Your task to perform on an android device: Go to settings Image 0: 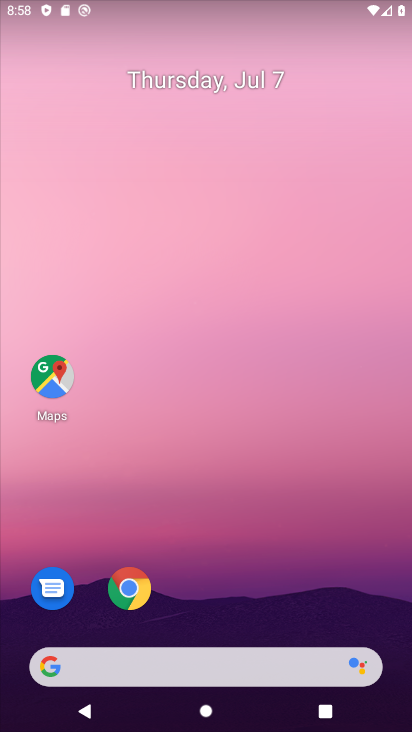
Step 0: drag from (227, 539) to (323, 0)
Your task to perform on an android device: Go to settings Image 1: 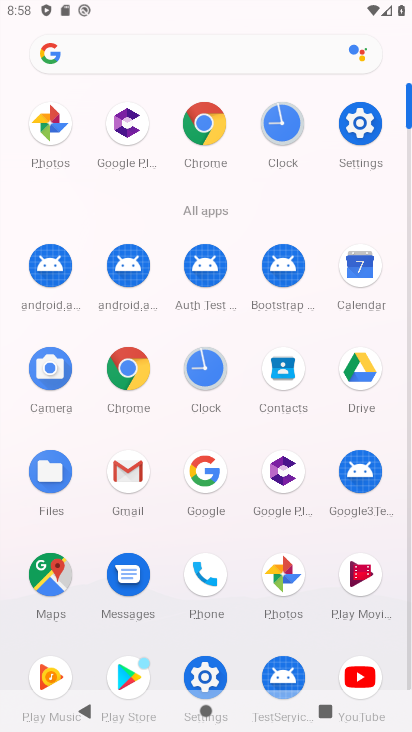
Step 1: click (367, 115)
Your task to perform on an android device: Go to settings Image 2: 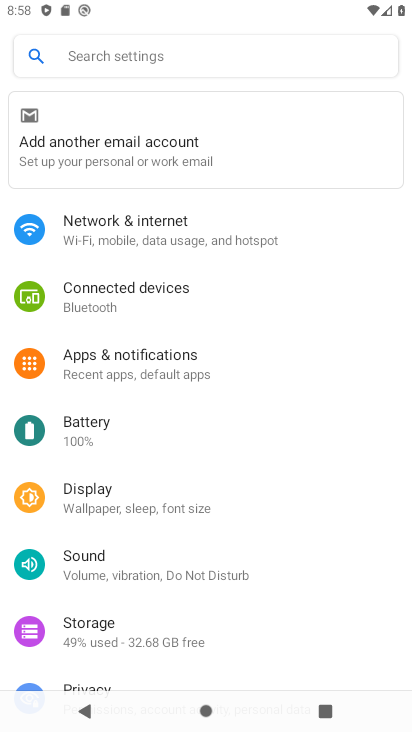
Step 2: task complete